Your task to perform on an android device: toggle sleep mode Image 0: 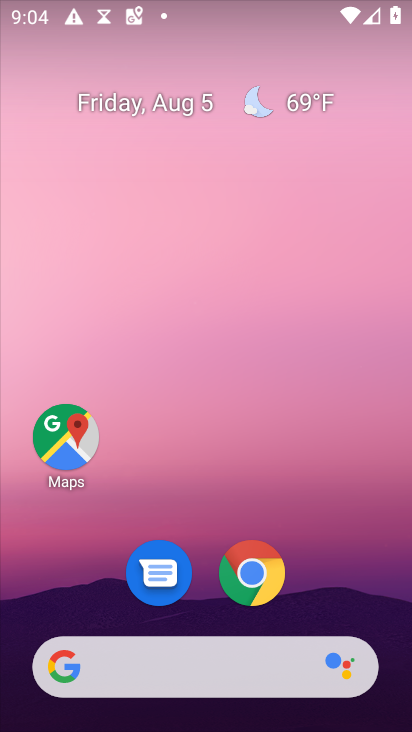
Step 0: drag from (216, 679) to (378, 94)
Your task to perform on an android device: toggle sleep mode Image 1: 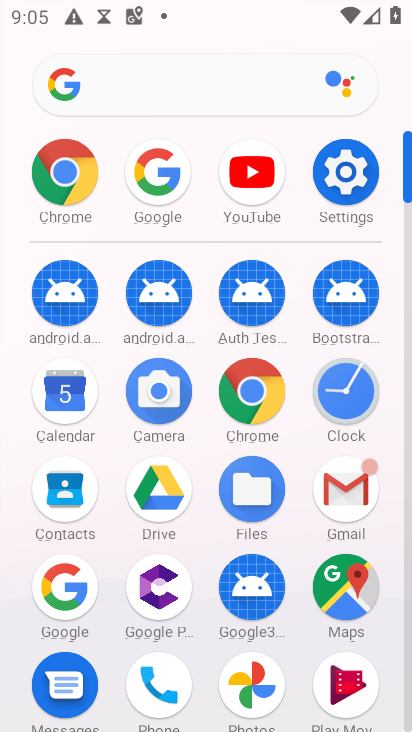
Step 1: click (348, 173)
Your task to perform on an android device: toggle sleep mode Image 2: 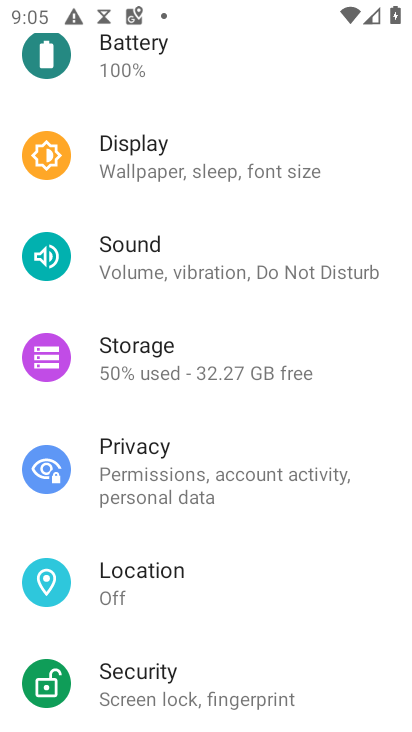
Step 2: drag from (163, 623) to (241, 488)
Your task to perform on an android device: toggle sleep mode Image 3: 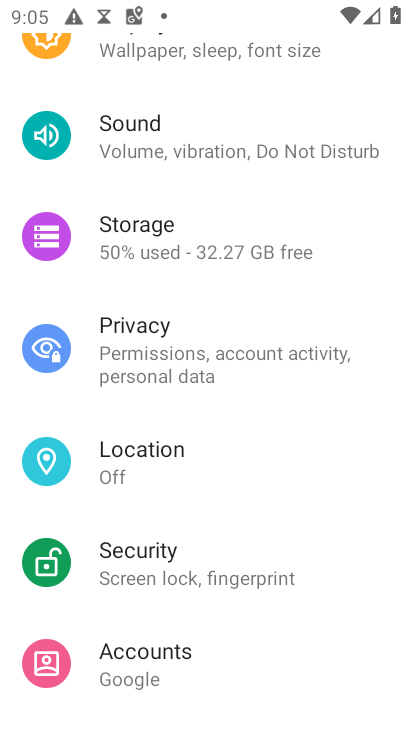
Step 3: drag from (239, 308) to (221, 425)
Your task to perform on an android device: toggle sleep mode Image 4: 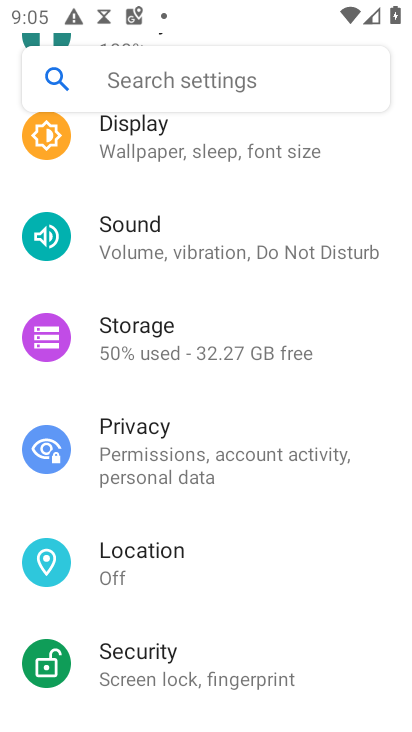
Step 4: drag from (222, 236) to (210, 358)
Your task to perform on an android device: toggle sleep mode Image 5: 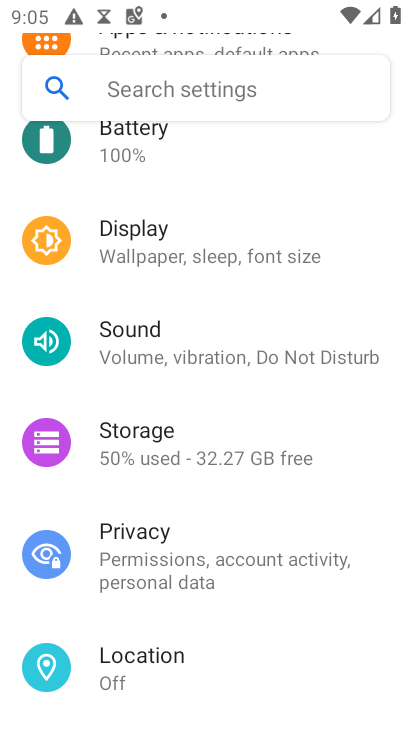
Step 5: click (197, 257)
Your task to perform on an android device: toggle sleep mode Image 6: 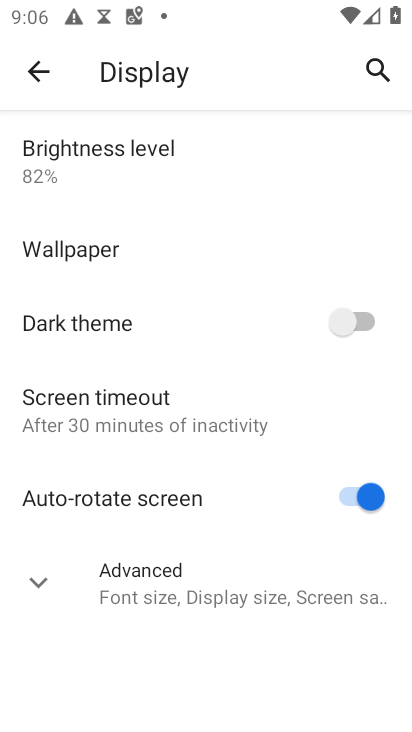
Step 6: click (156, 417)
Your task to perform on an android device: toggle sleep mode Image 7: 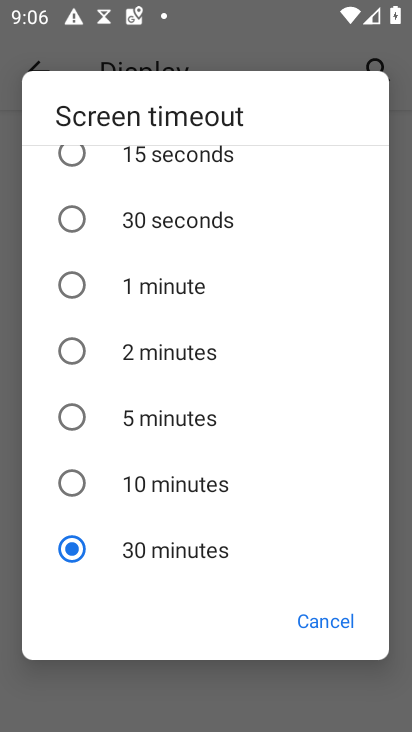
Step 7: click (331, 609)
Your task to perform on an android device: toggle sleep mode Image 8: 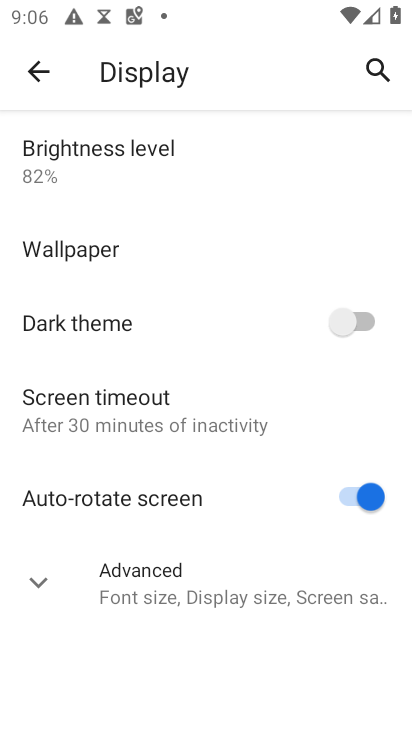
Step 8: click (183, 580)
Your task to perform on an android device: toggle sleep mode Image 9: 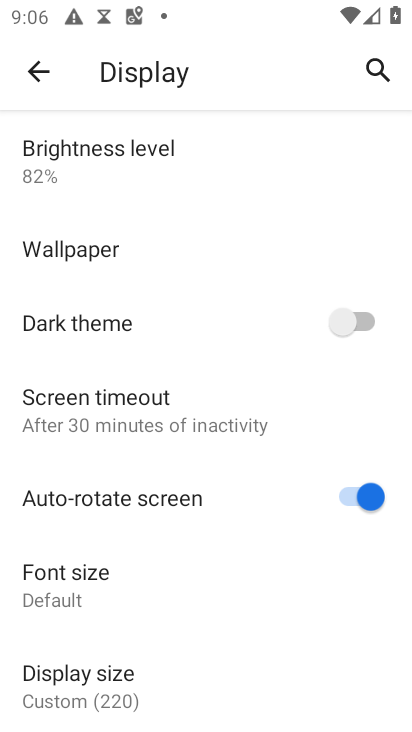
Step 9: drag from (209, 541) to (202, 304)
Your task to perform on an android device: toggle sleep mode Image 10: 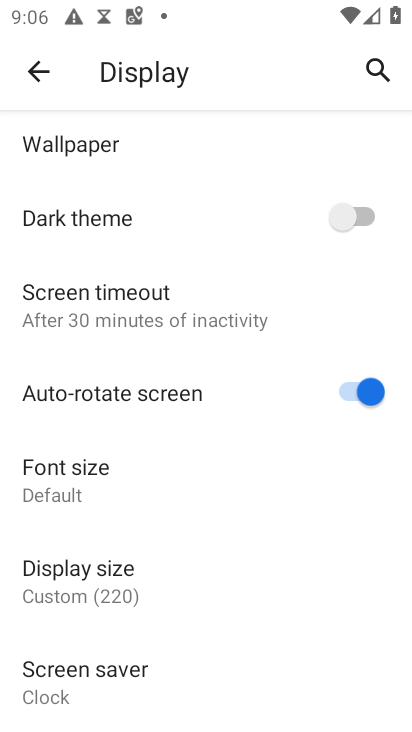
Step 10: click (111, 669)
Your task to perform on an android device: toggle sleep mode Image 11: 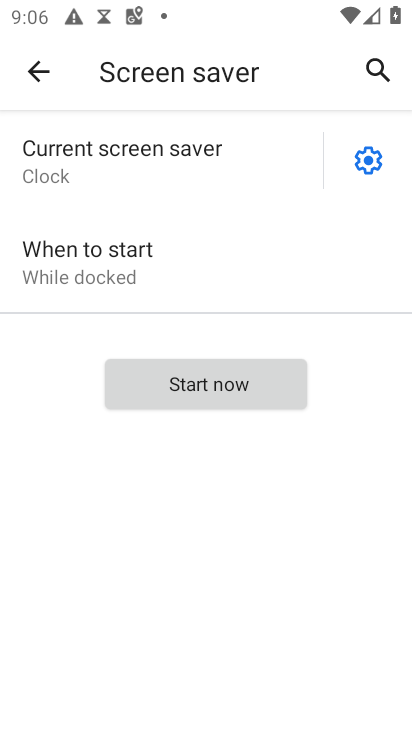
Step 11: click (367, 162)
Your task to perform on an android device: toggle sleep mode Image 12: 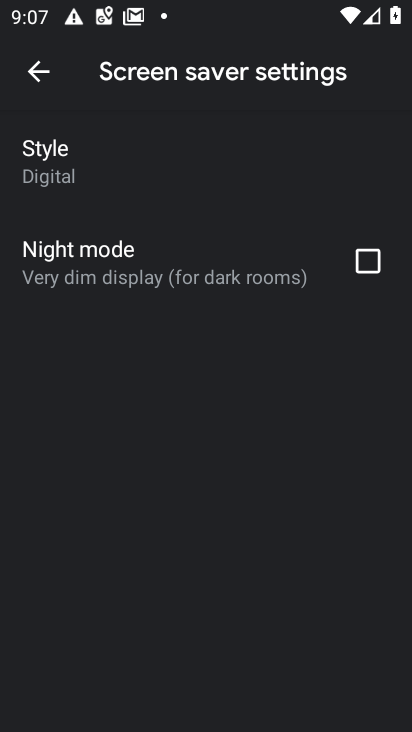
Step 12: task complete